Your task to perform on an android device: Go to Google maps Image 0: 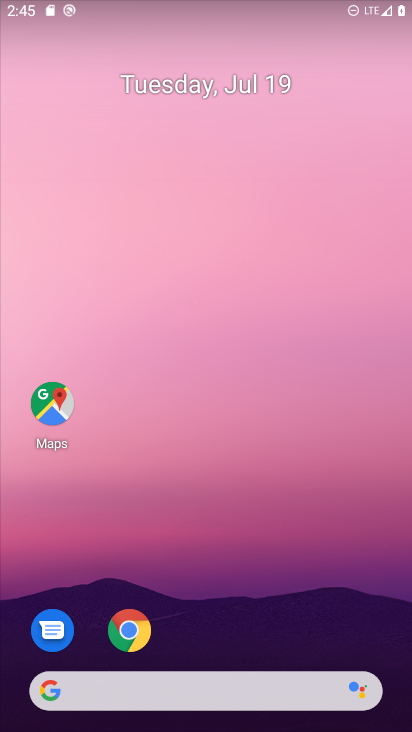
Step 0: click (55, 401)
Your task to perform on an android device: Go to Google maps Image 1: 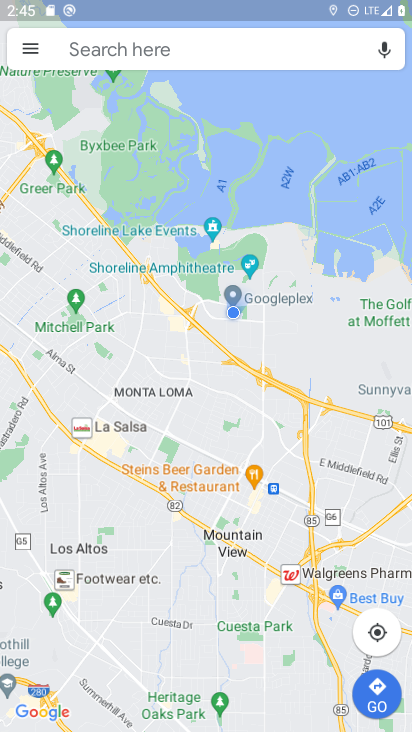
Step 1: task complete